Your task to perform on an android device: Go to Wikipedia Image 0: 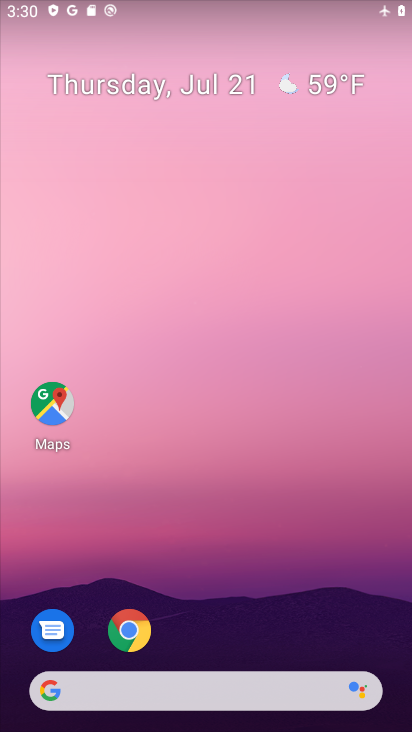
Step 0: drag from (112, 235) to (212, 122)
Your task to perform on an android device: Go to Wikipedia Image 1: 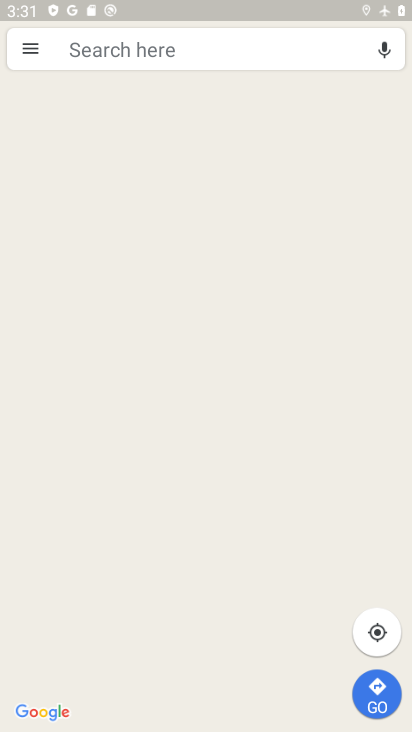
Step 1: drag from (255, 542) to (196, 235)
Your task to perform on an android device: Go to Wikipedia Image 2: 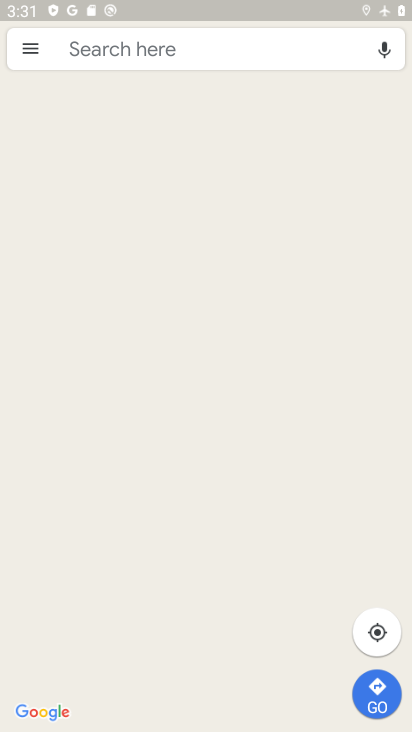
Step 2: drag from (233, 396) to (230, 232)
Your task to perform on an android device: Go to Wikipedia Image 3: 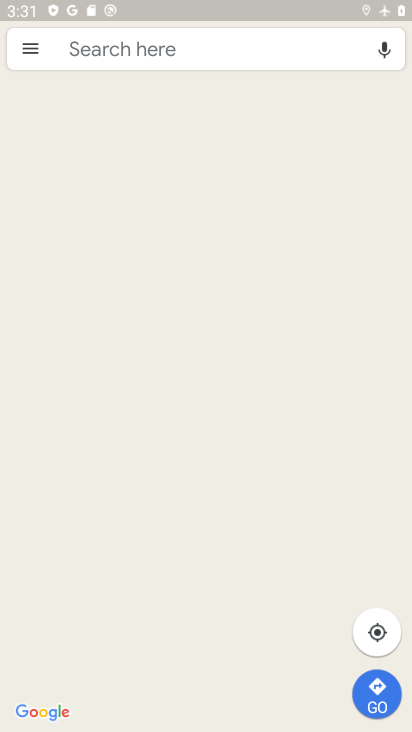
Step 3: drag from (203, 490) to (158, 178)
Your task to perform on an android device: Go to Wikipedia Image 4: 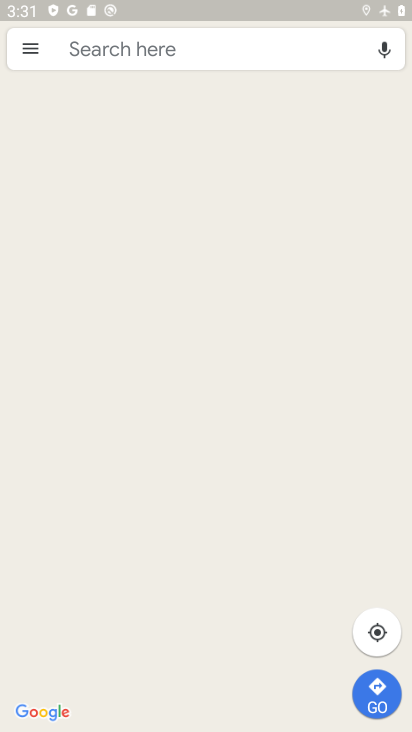
Step 4: drag from (152, 490) to (98, 40)
Your task to perform on an android device: Go to Wikipedia Image 5: 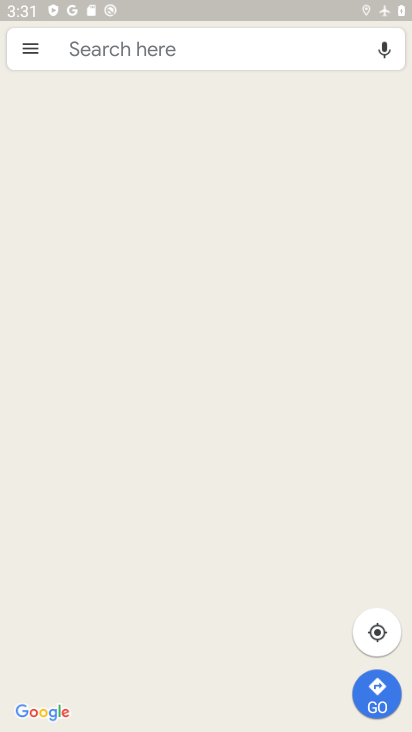
Step 5: press back button
Your task to perform on an android device: Go to Wikipedia Image 6: 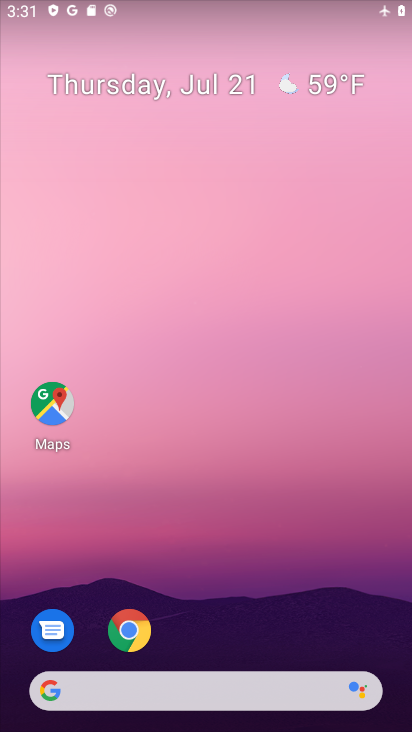
Step 6: drag from (286, 610) to (121, 50)
Your task to perform on an android device: Go to Wikipedia Image 7: 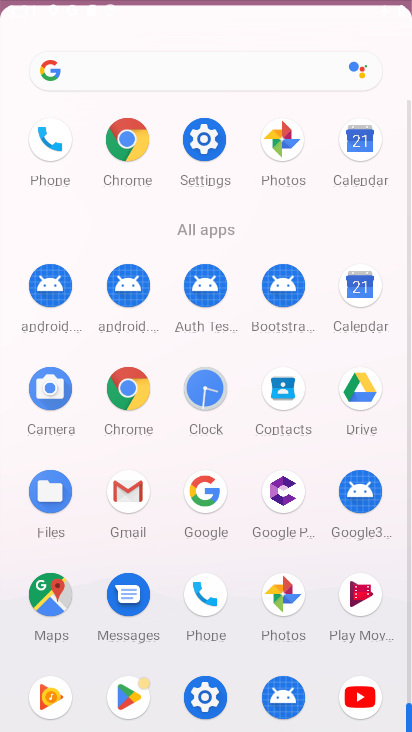
Step 7: drag from (176, 361) to (132, 20)
Your task to perform on an android device: Go to Wikipedia Image 8: 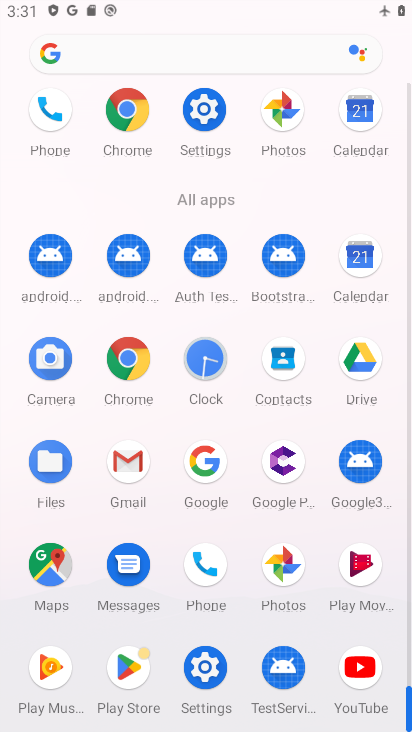
Step 8: click (116, 117)
Your task to perform on an android device: Go to Wikipedia Image 9: 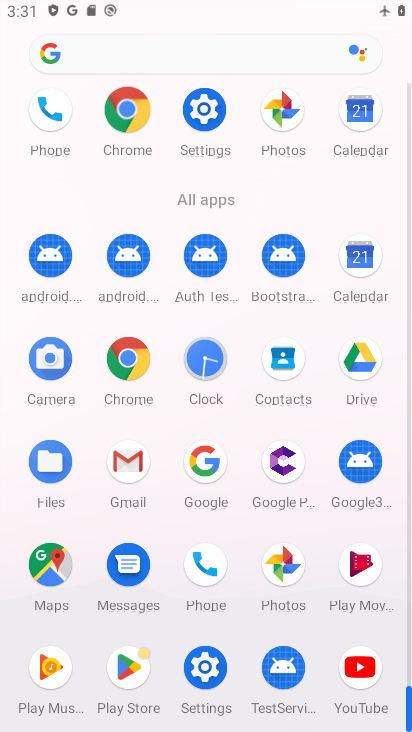
Step 9: click (117, 110)
Your task to perform on an android device: Go to Wikipedia Image 10: 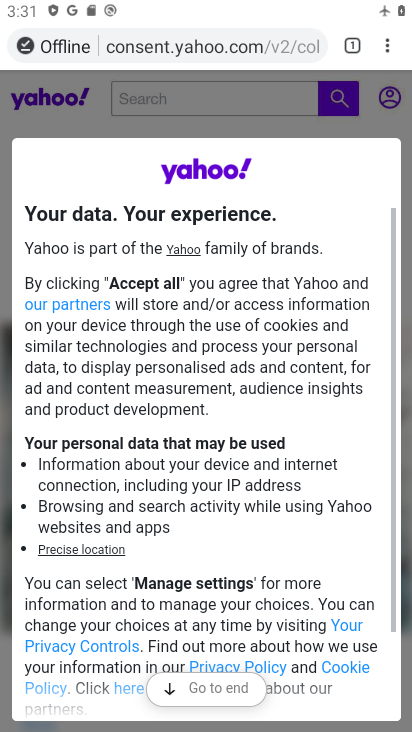
Step 10: drag from (379, 40) to (221, 85)
Your task to perform on an android device: Go to Wikipedia Image 11: 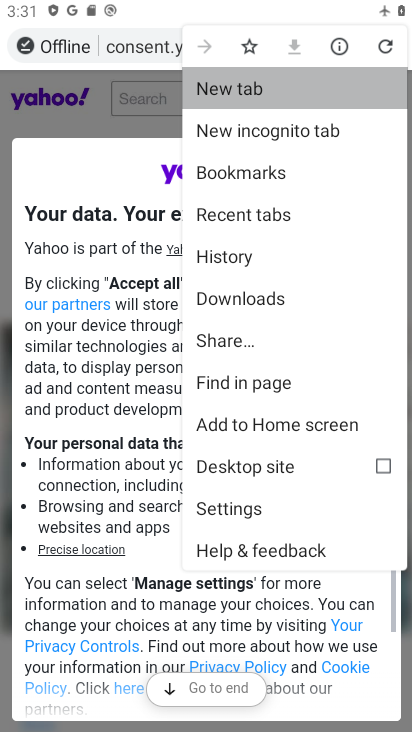
Step 11: click (227, 87)
Your task to perform on an android device: Go to Wikipedia Image 12: 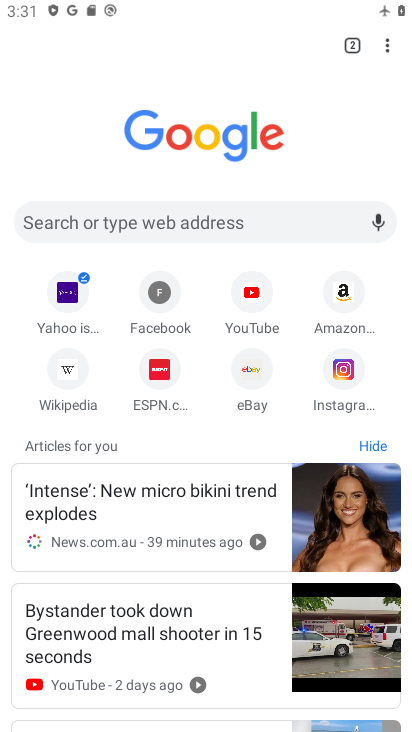
Step 12: click (57, 367)
Your task to perform on an android device: Go to Wikipedia Image 13: 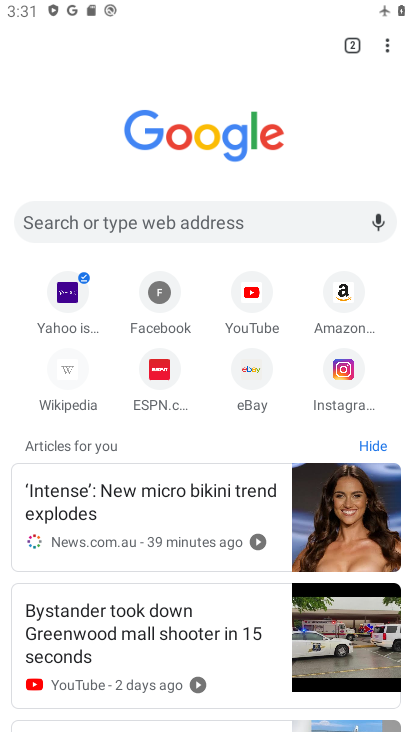
Step 13: click (59, 369)
Your task to perform on an android device: Go to Wikipedia Image 14: 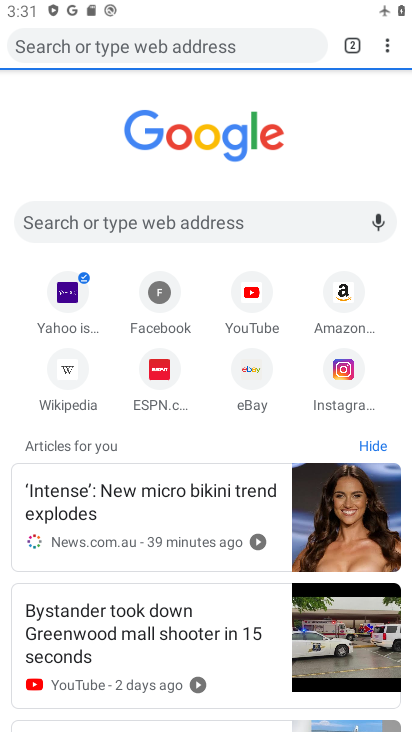
Step 14: click (60, 370)
Your task to perform on an android device: Go to Wikipedia Image 15: 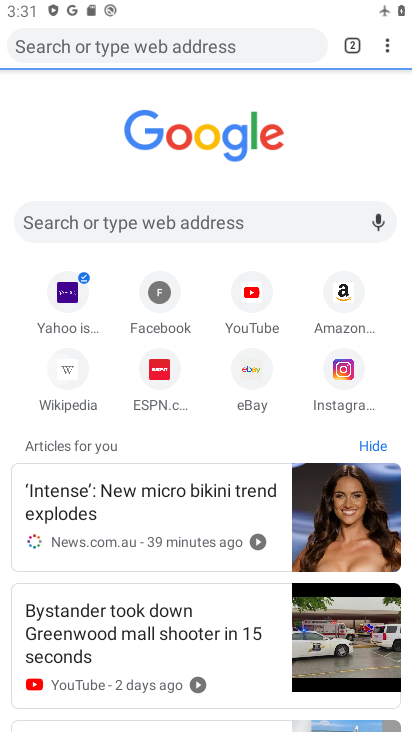
Step 15: click (61, 370)
Your task to perform on an android device: Go to Wikipedia Image 16: 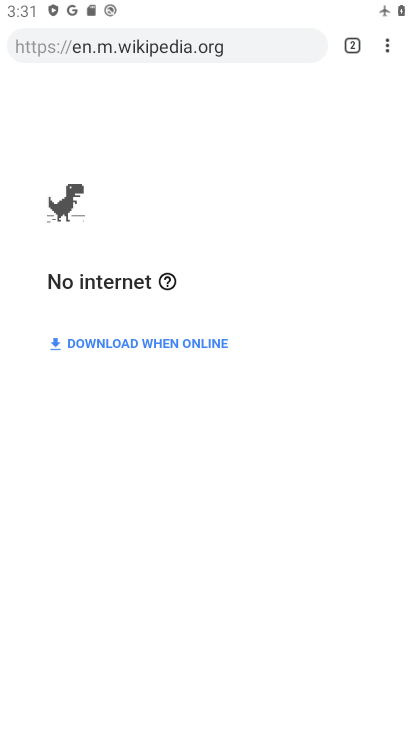
Step 16: task complete